Your task to perform on an android device: Show me popular videos on Youtube Image 0: 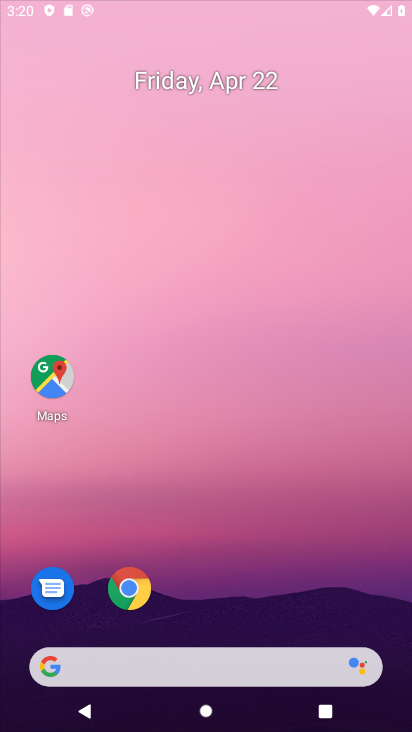
Step 0: drag from (136, 633) to (249, 31)
Your task to perform on an android device: Show me popular videos on Youtube Image 1: 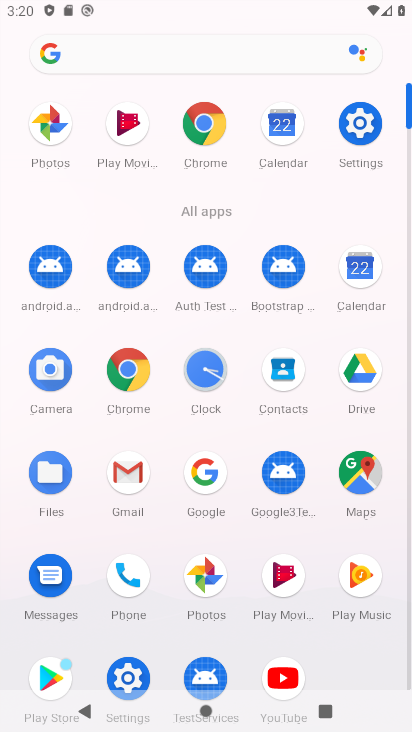
Step 1: click (299, 667)
Your task to perform on an android device: Show me popular videos on Youtube Image 2: 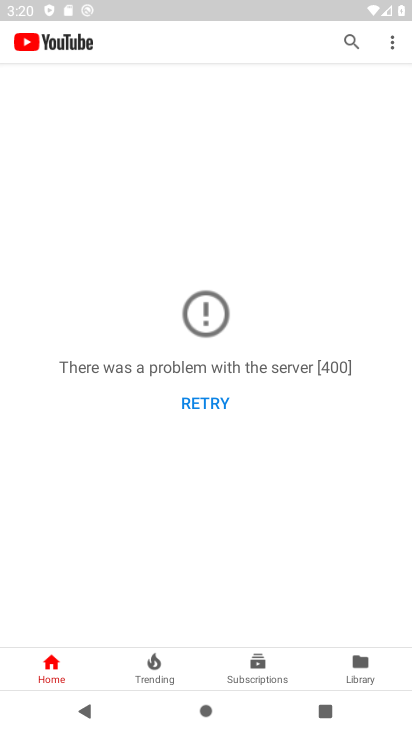
Step 2: click (162, 671)
Your task to perform on an android device: Show me popular videos on Youtube Image 3: 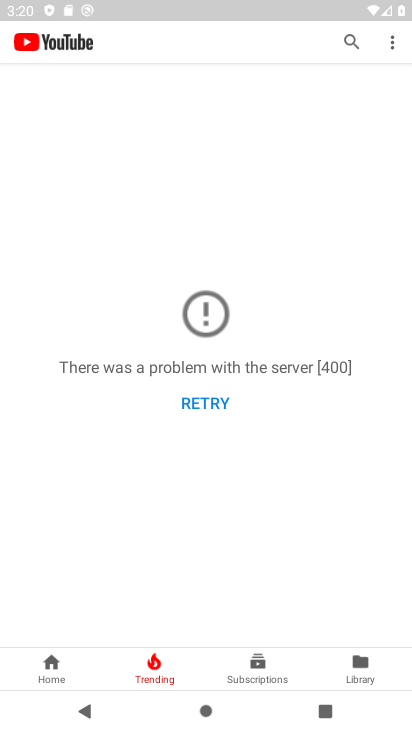
Step 3: task complete